Your task to perform on an android device: open device folders in google photos Image 0: 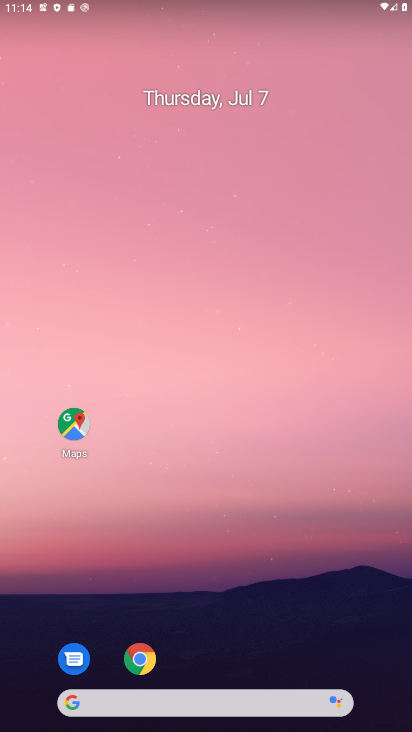
Step 0: press home button
Your task to perform on an android device: open device folders in google photos Image 1: 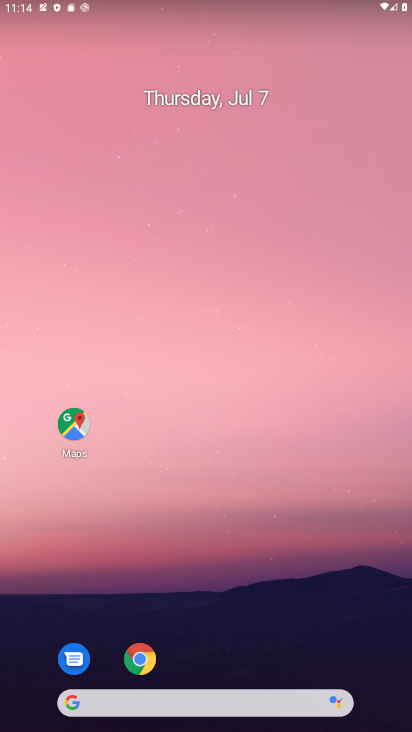
Step 1: drag from (233, 668) to (259, 6)
Your task to perform on an android device: open device folders in google photos Image 2: 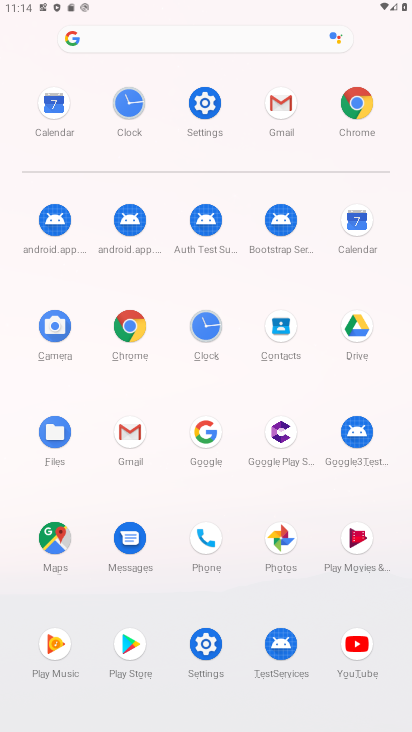
Step 2: click (283, 531)
Your task to perform on an android device: open device folders in google photos Image 3: 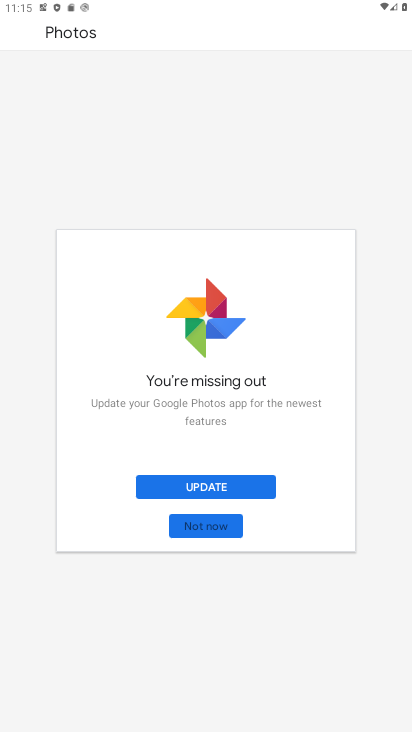
Step 3: click (201, 480)
Your task to perform on an android device: open device folders in google photos Image 4: 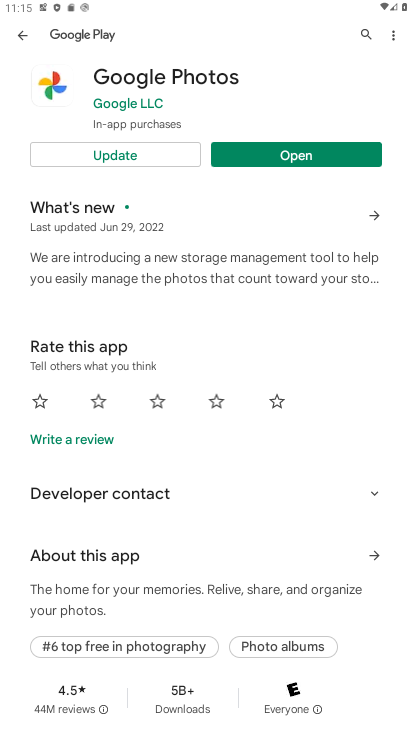
Step 4: click (118, 148)
Your task to perform on an android device: open device folders in google photos Image 5: 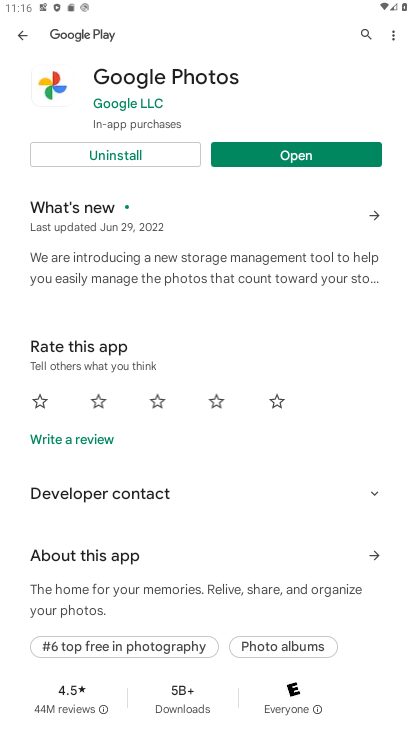
Step 5: click (313, 156)
Your task to perform on an android device: open device folders in google photos Image 6: 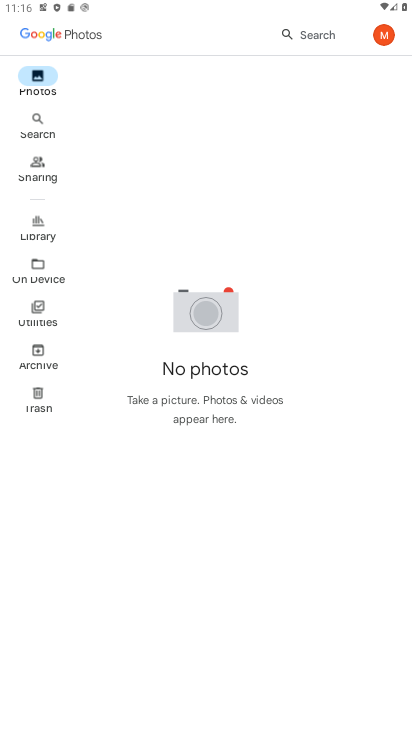
Step 6: click (309, 32)
Your task to perform on an android device: open device folders in google photos Image 7: 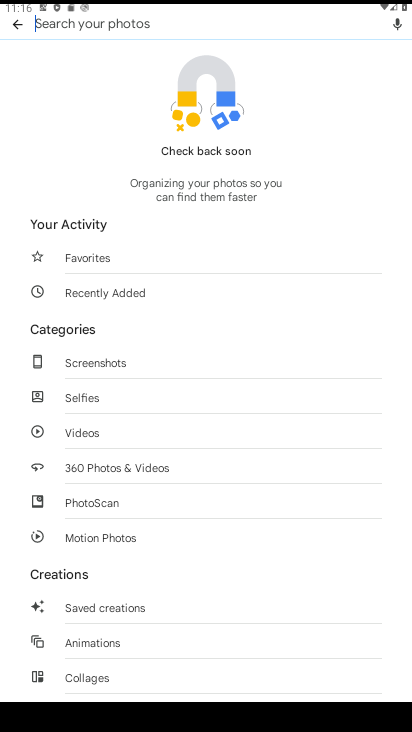
Step 7: click (107, 20)
Your task to perform on an android device: open device folders in google photos Image 8: 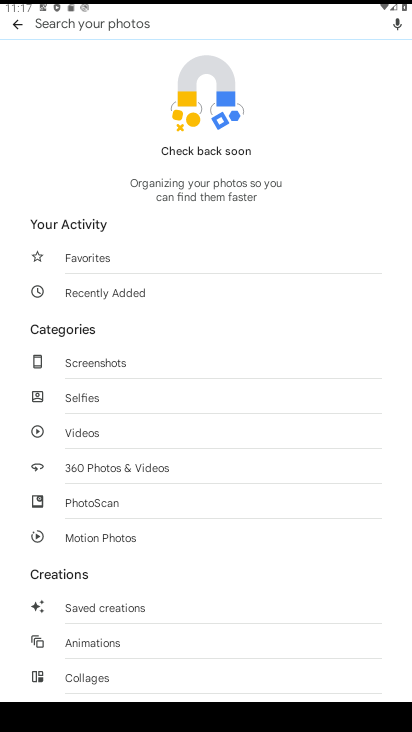
Step 8: type "device"
Your task to perform on an android device: open device folders in google photos Image 9: 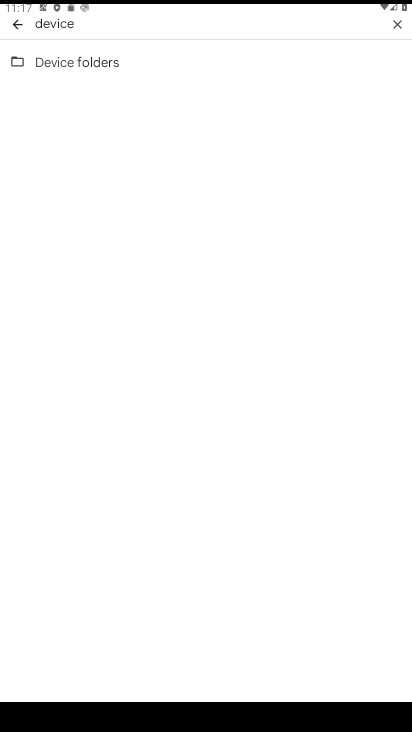
Step 9: click (73, 63)
Your task to perform on an android device: open device folders in google photos Image 10: 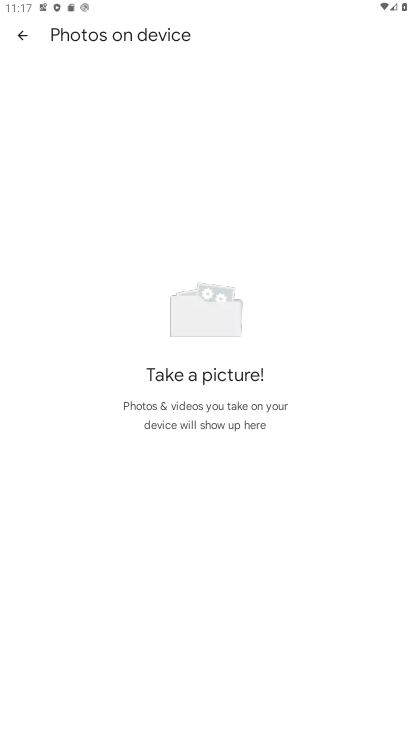
Step 10: task complete